Your task to perform on an android device: turn off airplane mode Image 0: 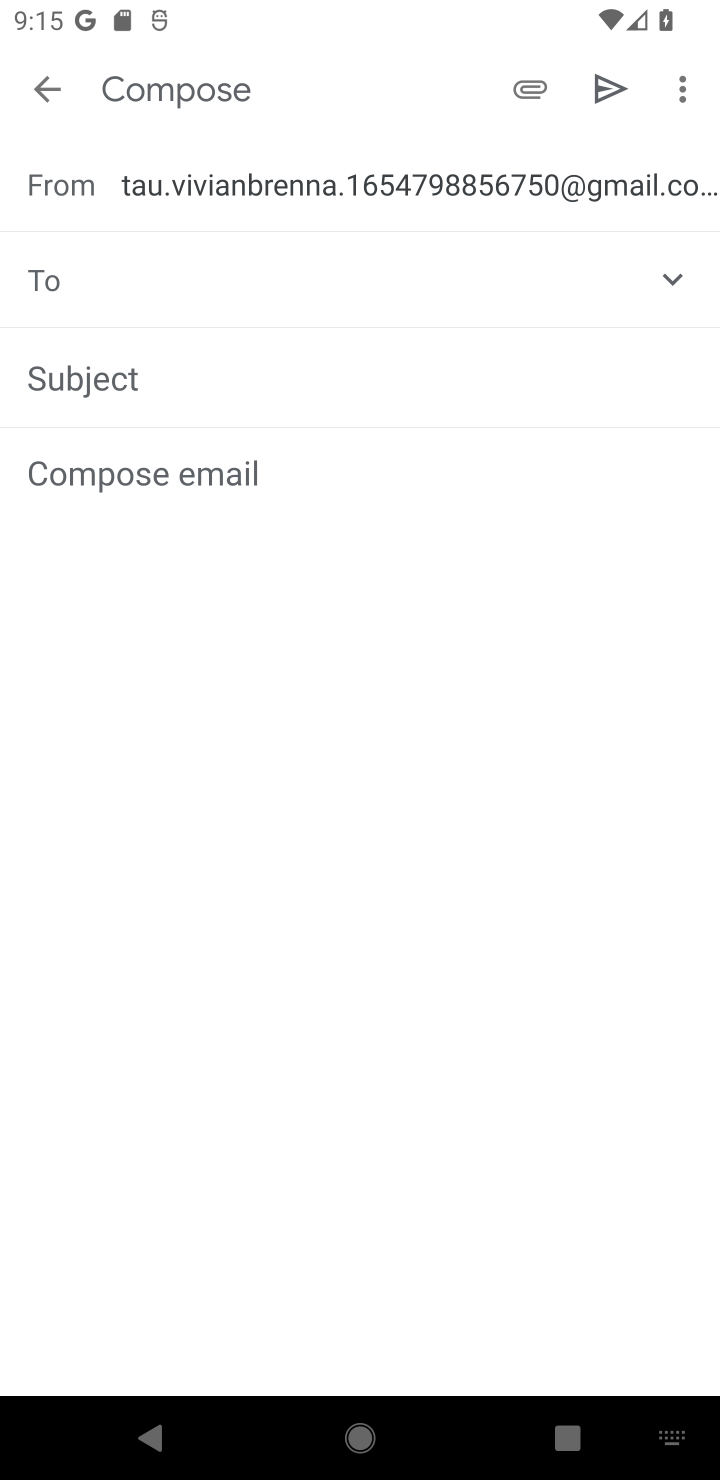
Step 0: press home button
Your task to perform on an android device: turn off airplane mode Image 1: 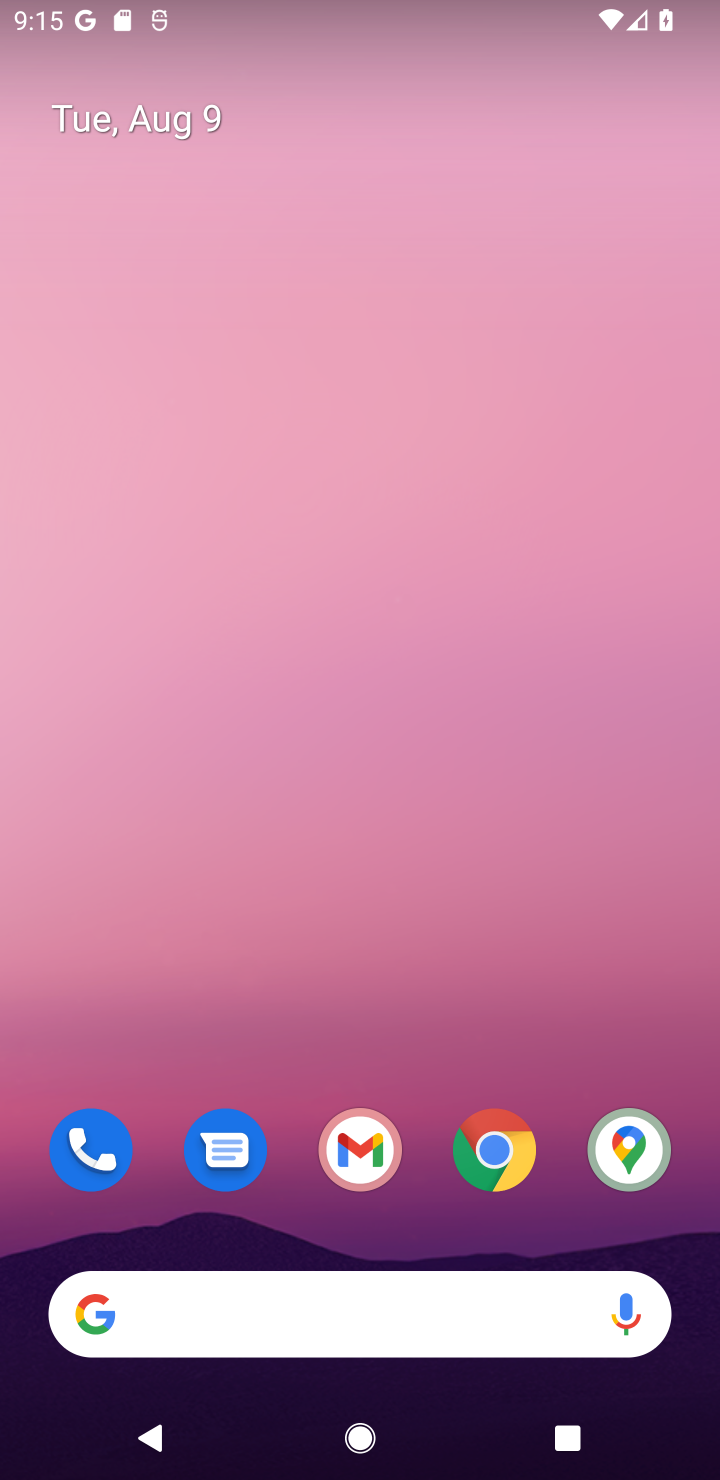
Step 1: drag from (322, 1224) to (570, 198)
Your task to perform on an android device: turn off airplane mode Image 2: 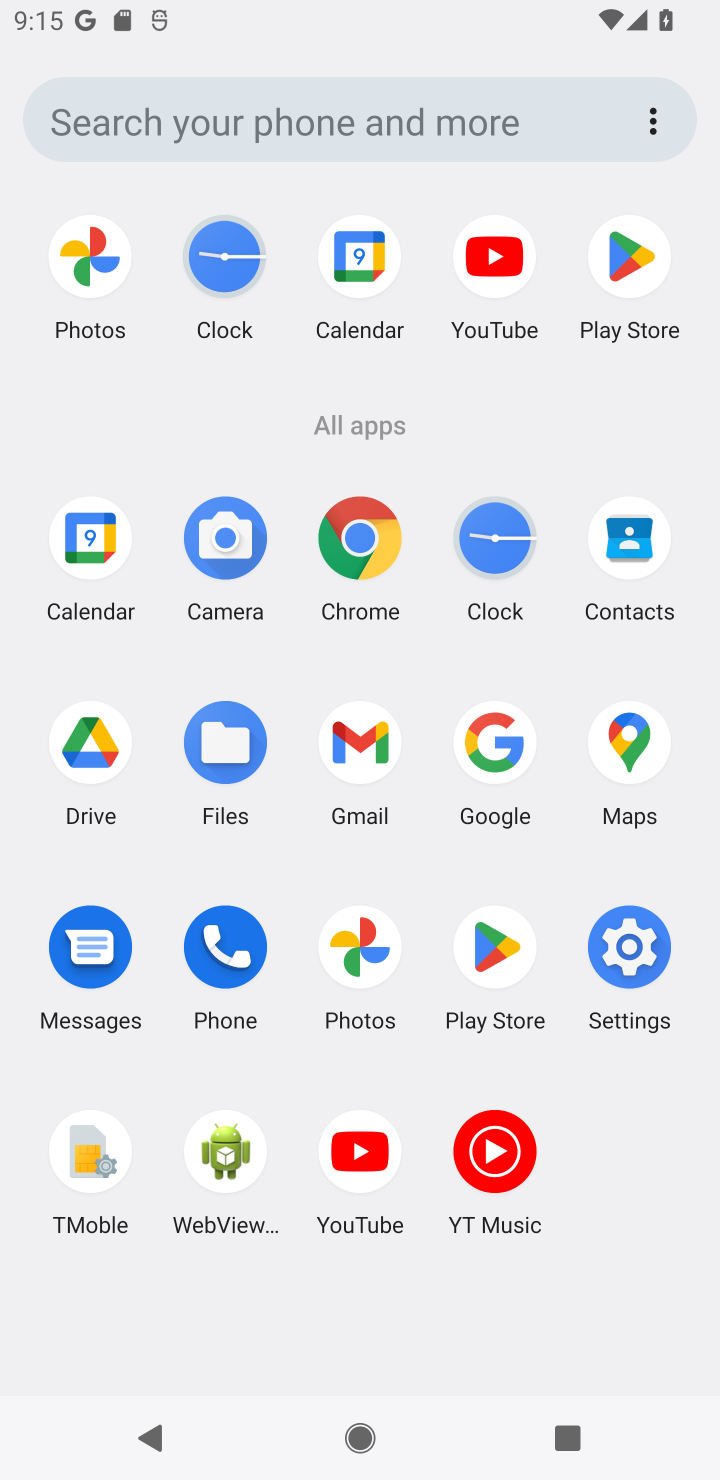
Step 2: click (607, 937)
Your task to perform on an android device: turn off airplane mode Image 3: 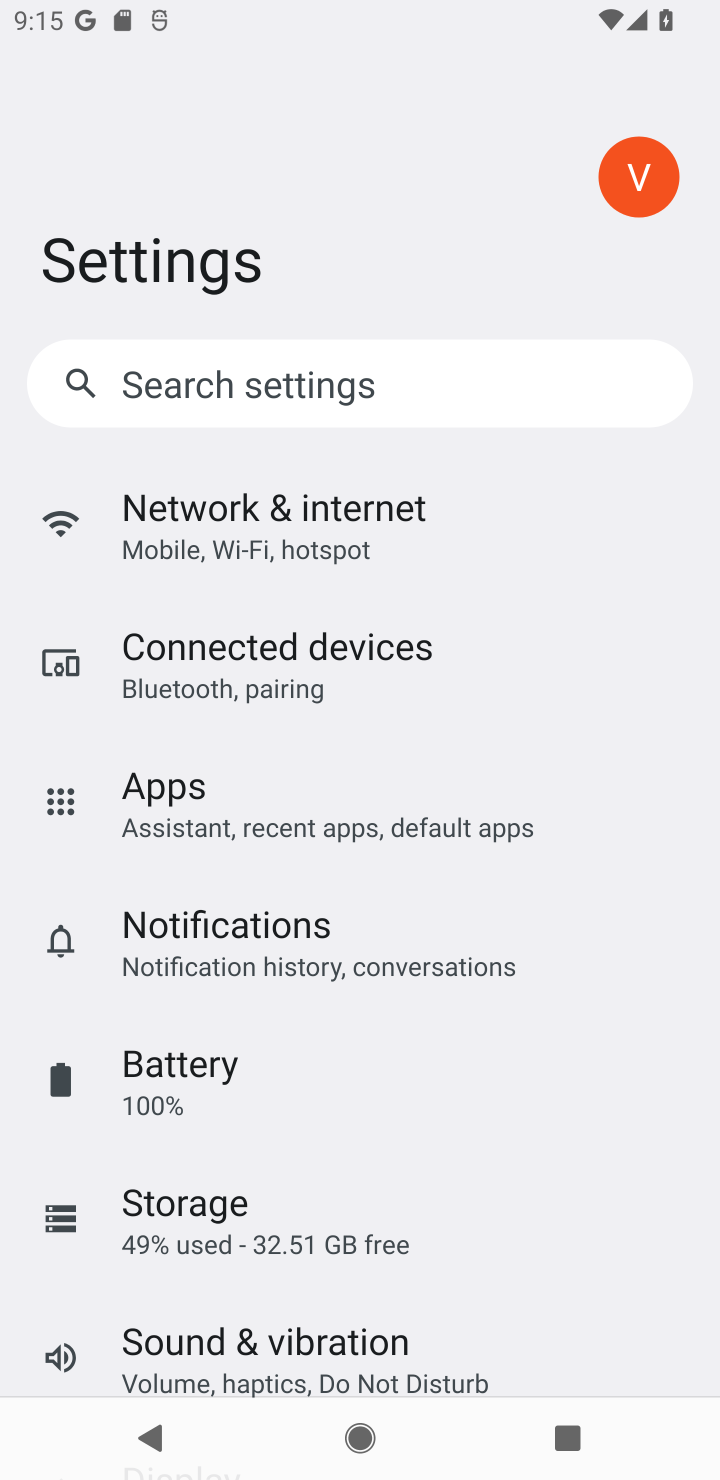
Step 3: click (384, 519)
Your task to perform on an android device: turn off airplane mode Image 4: 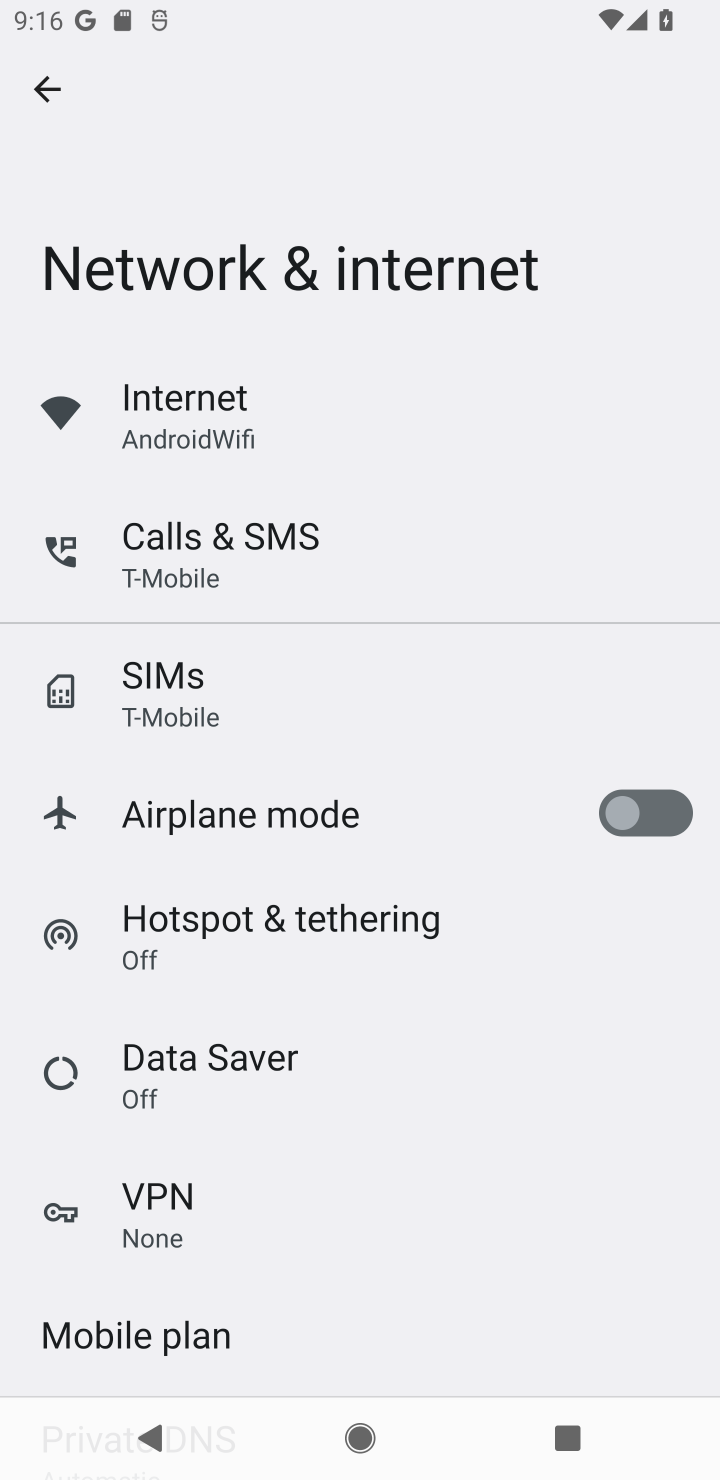
Step 4: task complete